Your task to perform on an android device: Open my contact list Image 0: 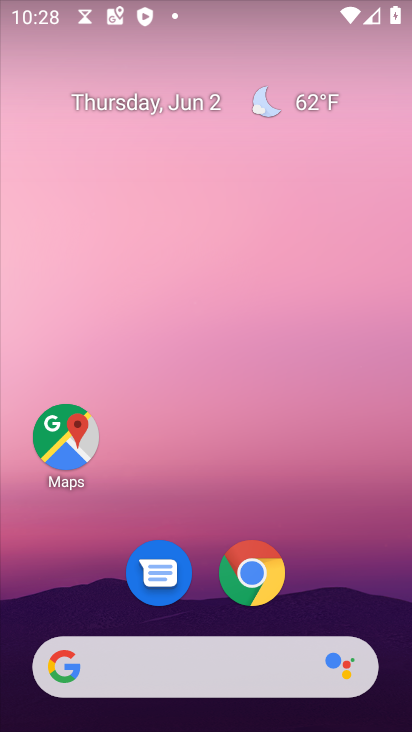
Step 0: drag from (345, 560) to (273, 16)
Your task to perform on an android device: Open my contact list Image 1: 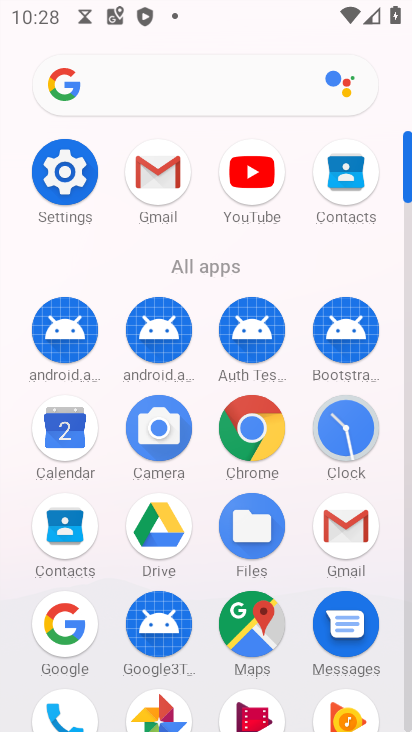
Step 1: click (65, 529)
Your task to perform on an android device: Open my contact list Image 2: 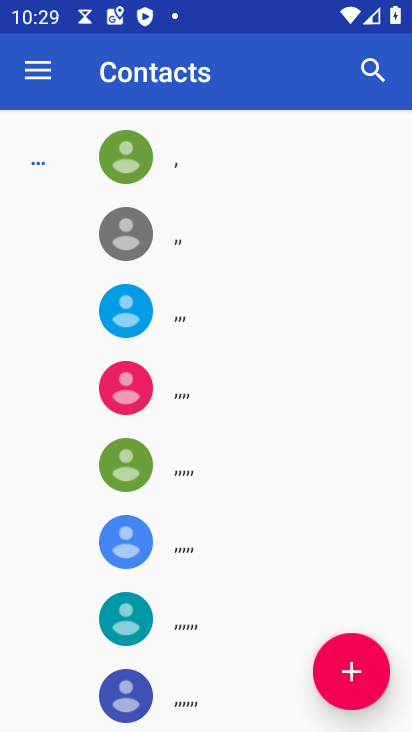
Step 2: task complete